Your task to perform on an android device: toggle sleep mode Image 0: 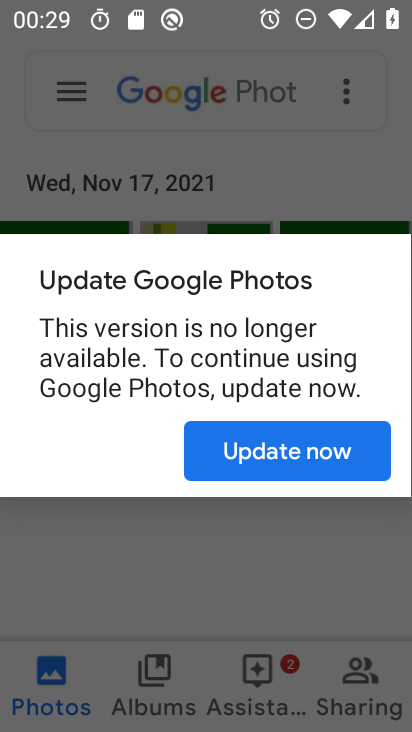
Step 0: click (240, 452)
Your task to perform on an android device: toggle sleep mode Image 1: 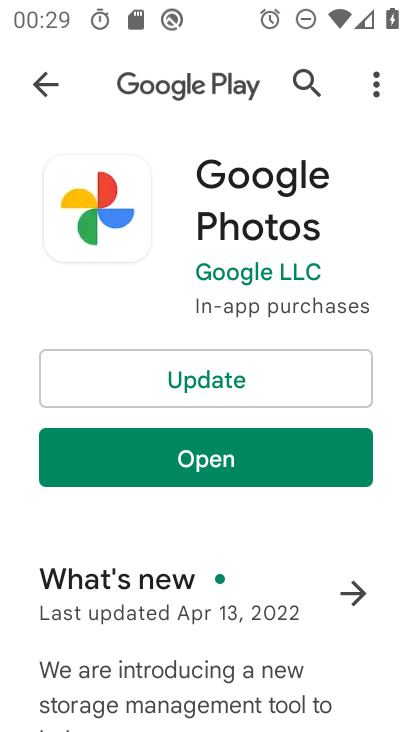
Step 1: press back button
Your task to perform on an android device: toggle sleep mode Image 2: 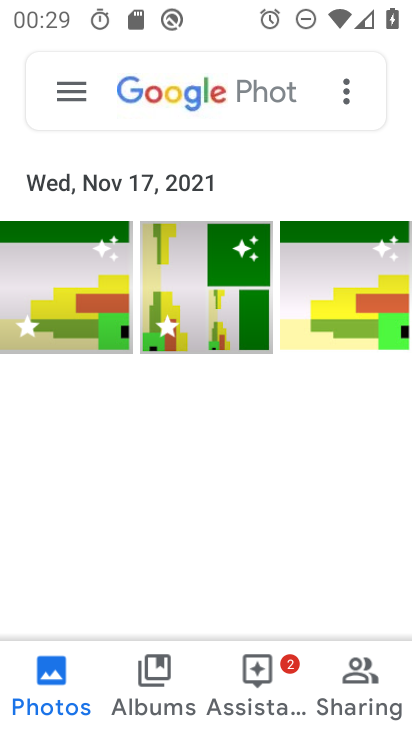
Step 2: press home button
Your task to perform on an android device: toggle sleep mode Image 3: 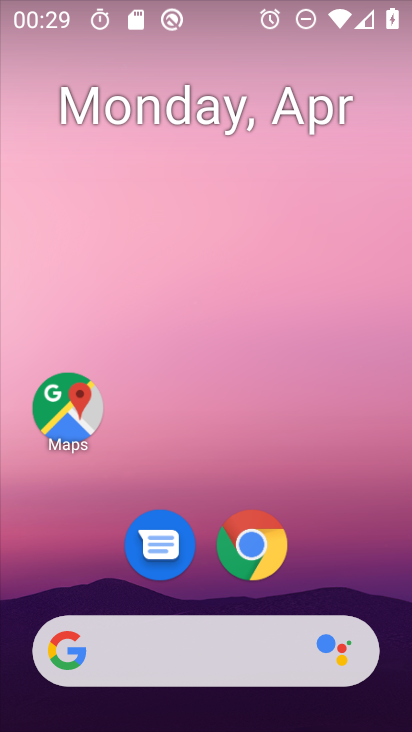
Step 3: drag from (336, 564) to (329, 199)
Your task to perform on an android device: toggle sleep mode Image 4: 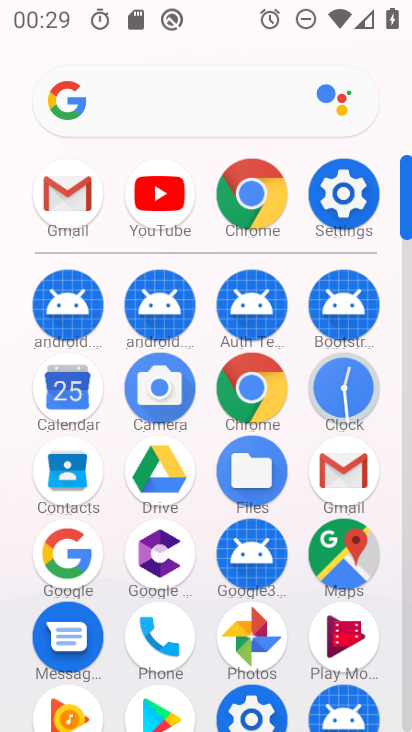
Step 4: click (250, 701)
Your task to perform on an android device: toggle sleep mode Image 5: 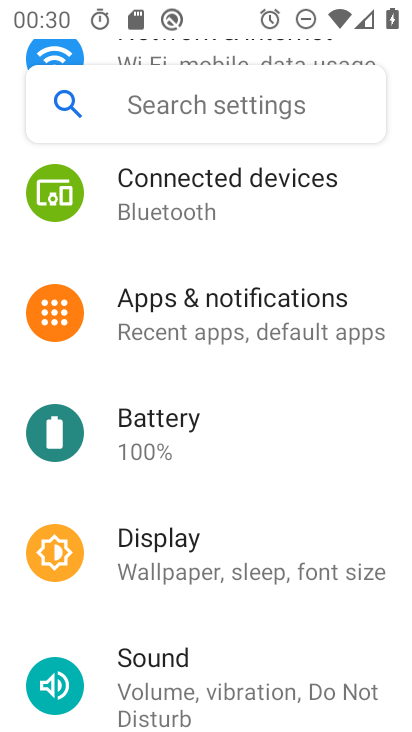
Step 5: task complete